Your task to perform on an android device: find photos in the google photos app Image 0: 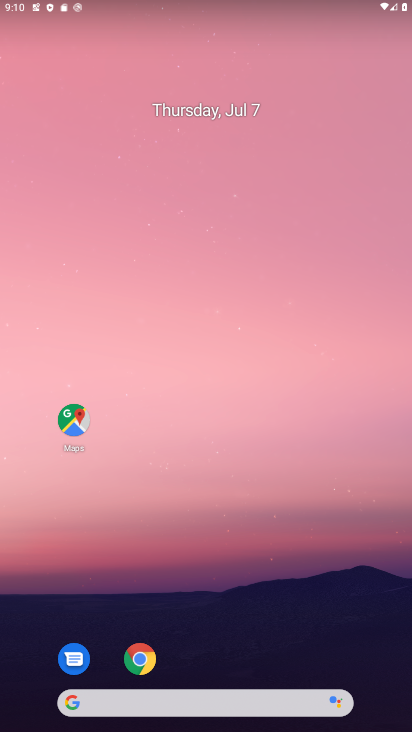
Step 0: drag from (232, 519) to (293, 63)
Your task to perform on an android device: find photos in the google photos app Image 1: 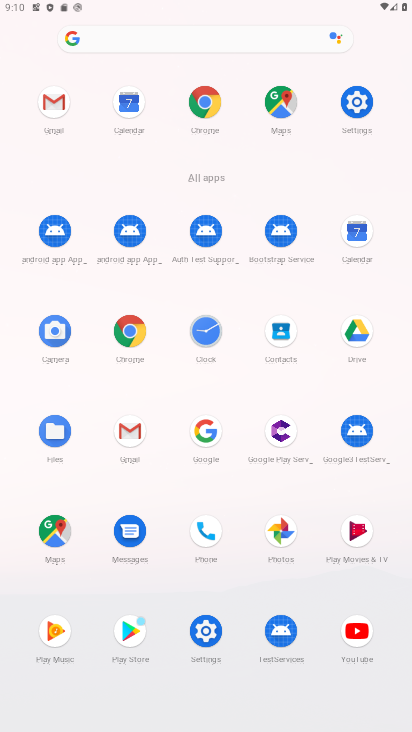
Step 1: click (280, 532)
Your task to perform on an android device: find photos in the google photos app Image 2: 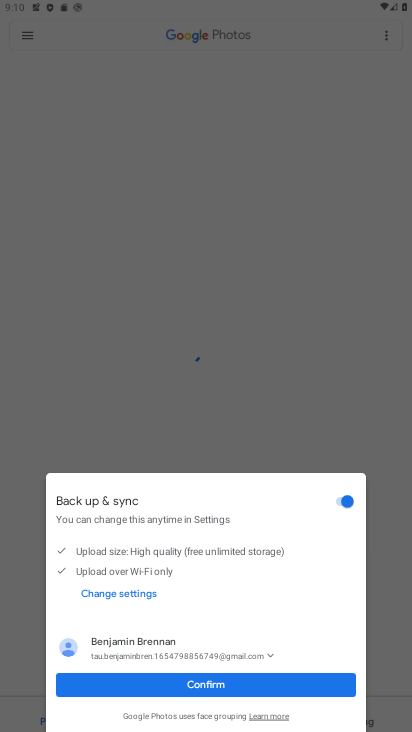
Step 2: click (235, 685)
Your task to perform on an android device: find photos in the google photos app Image 3: 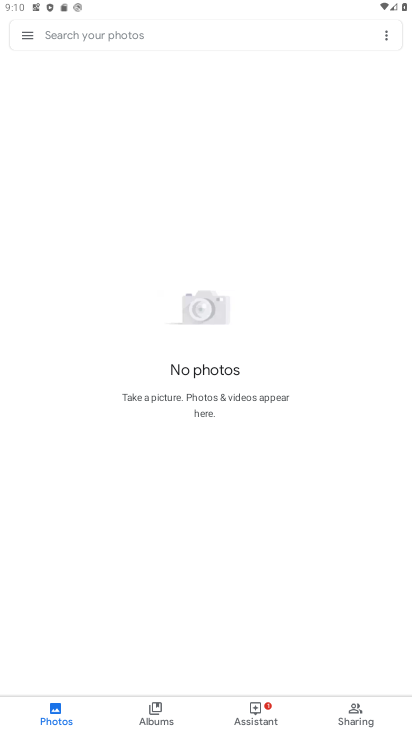
Step 3: task complete